Your task to perform on an android device: star an email in the gmail app Image 0: 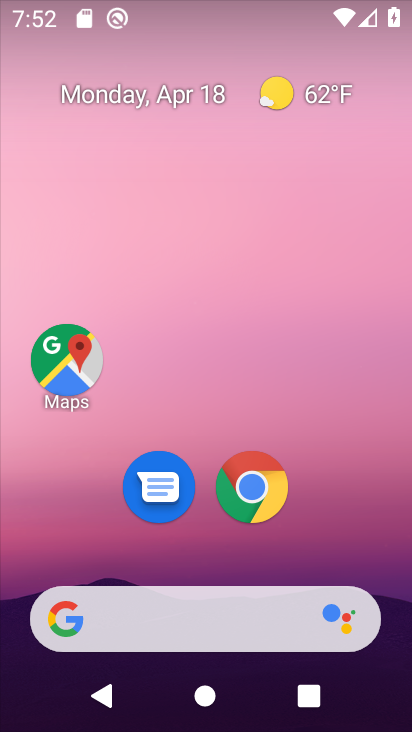
Step 0: press home button
Your task to perform on an android device: star an email in the gmail app Image 1: 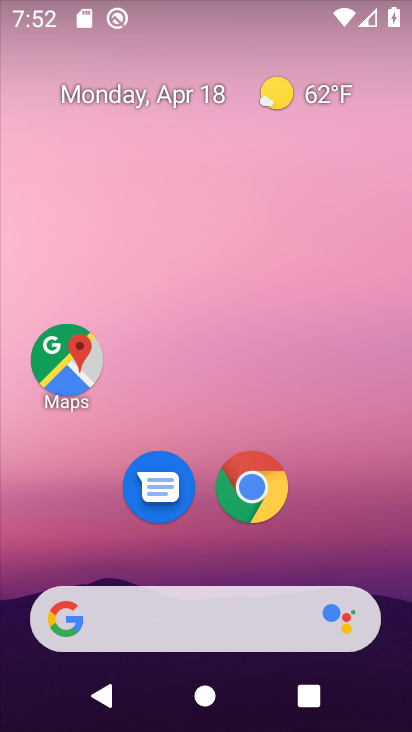
Step 1: drag from (208, 546) to (289, 66)
Your task to perform on an android device: star an email in the gmail app Image 2: 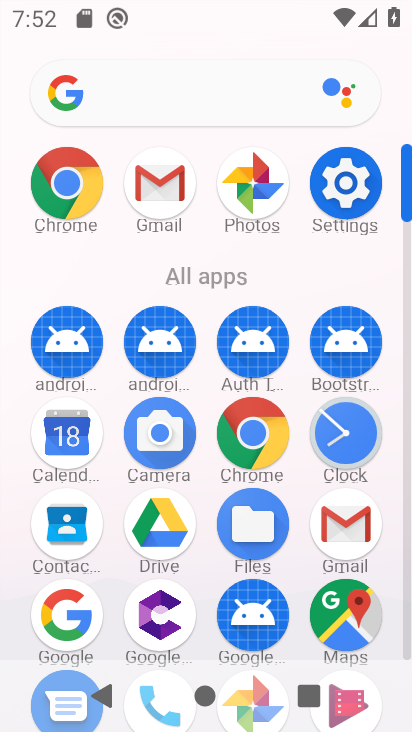
Step 2: click (348, 518)
Your task to perform on an android device: star an email in the gmail app Image 3: 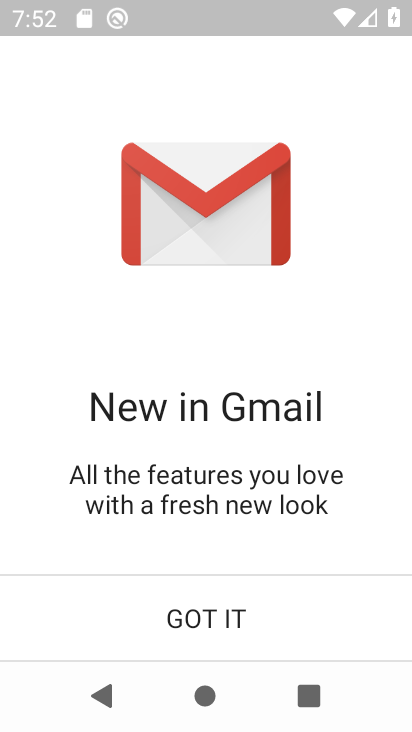
Step 3: click (207, 620)
Your task to perform on an android device: star an email in the gmail app Image 4: 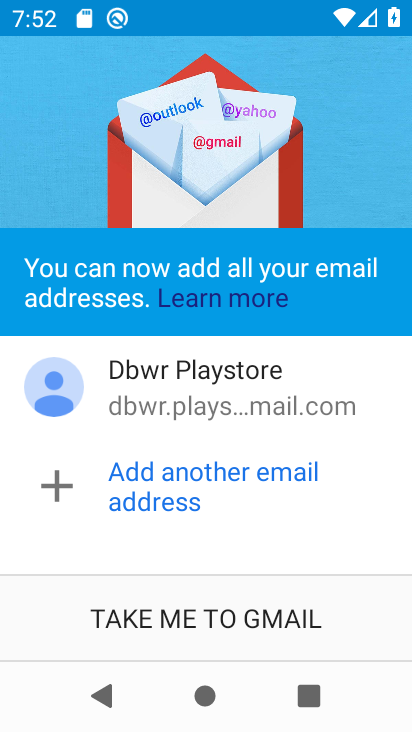
Step 4: click (204, 631)
Your task to perform on an android device: star an email in the gmail app Image 5: 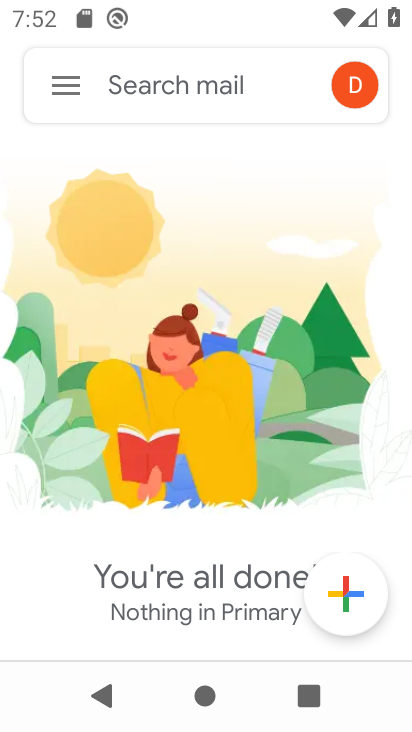
Step 5: click (64, 85)
Your task to perform on an android device: star an email in the gmail app Image 6: 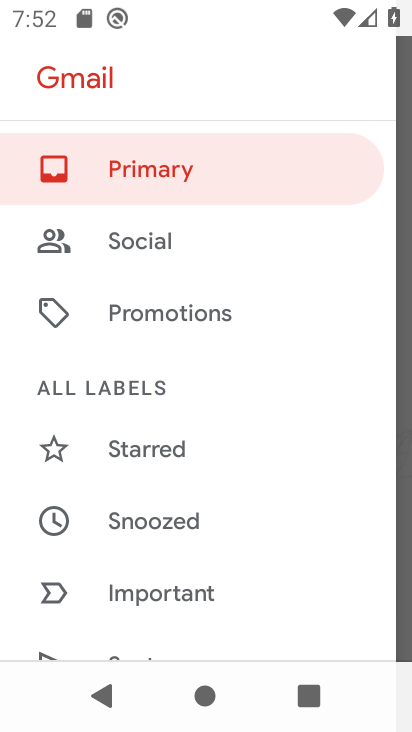
Step 6: drag from (120, 539) to (186, 206)
Your task to perform on an android device: star an email in the gmail app Image 7: 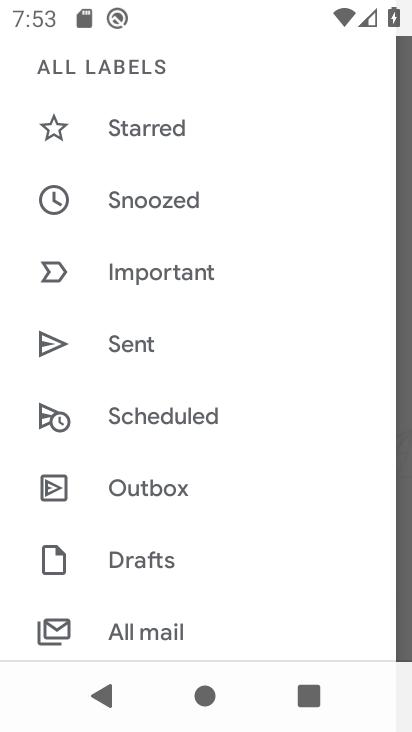
Step 7: click (129, 634)
Your task to perform on an android device: star an email in the gmail app Image 8: 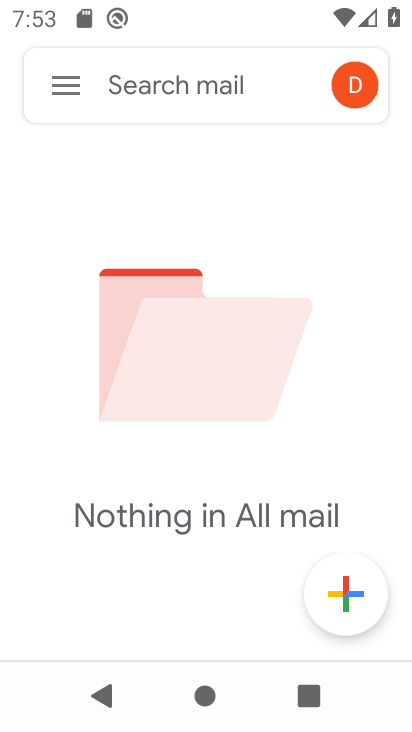
Step 8: task complete